Your task to perform on an android device: toggle notification dots Image 0: 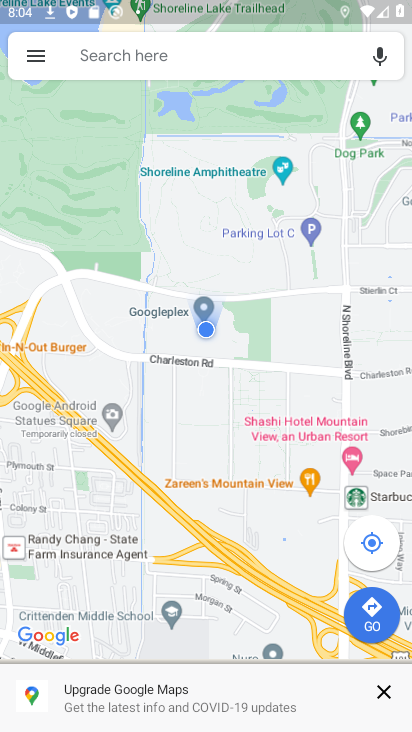
Step 0: press home button
Your task to perform on an android device: toggle notification dots Image 1: 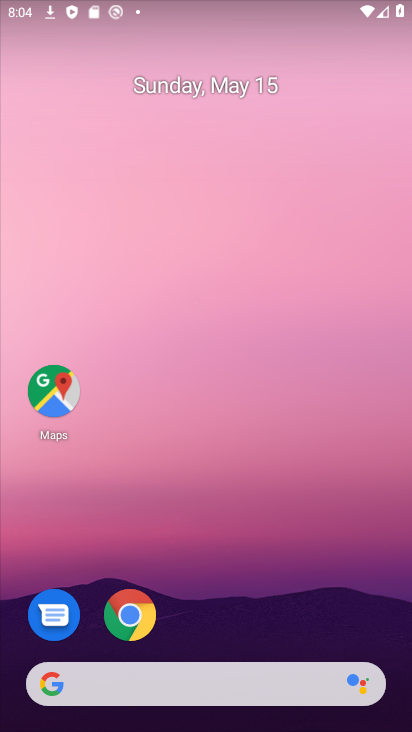
Step 1: drag from (229, 704) to (371, 171)
Your task to perform on an android device: toggle notification dots Image 2: 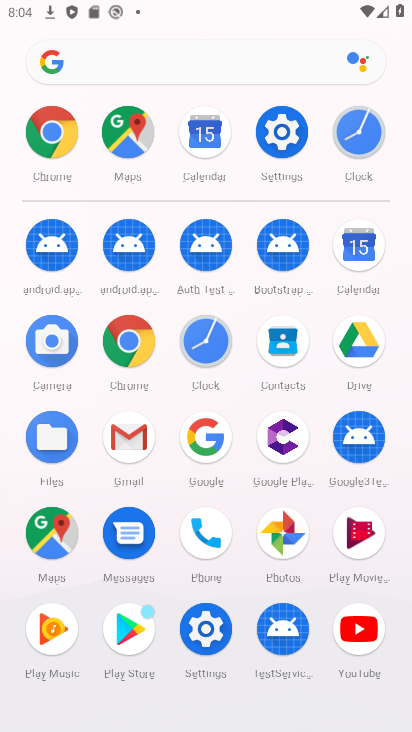
Step 2: click (285, 146)
Your task to perform on an android device: toggle notification dots Image 3: 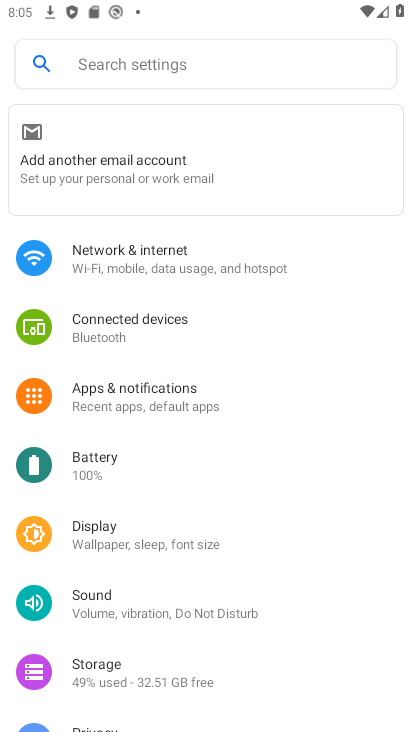
Step 3: click (149, 71)
Your task to perform on an android device: toggle notification dots Image 4: 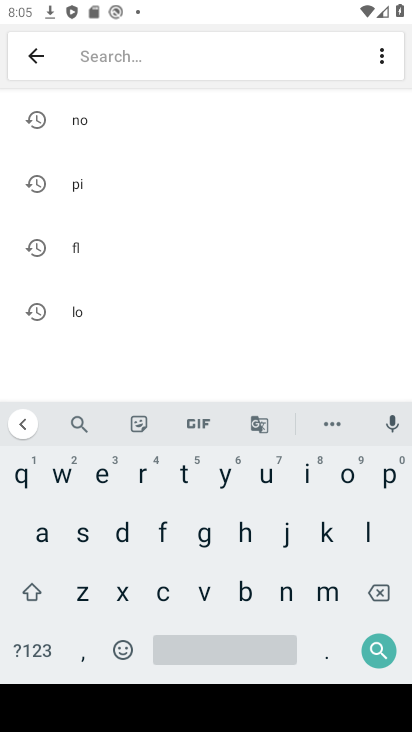
Step 4: click (123, 540)
Your task to perform on an android device: toggle notification dots Image 5: 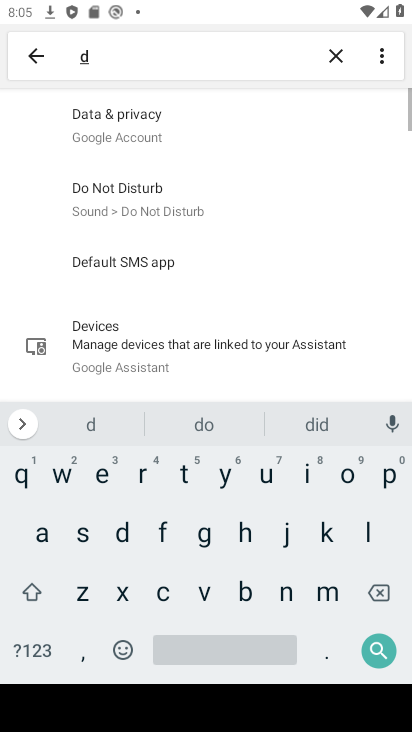
Step 5: click (343, 474)
Your task to perform on an android device: toggle notification dots Image 6: 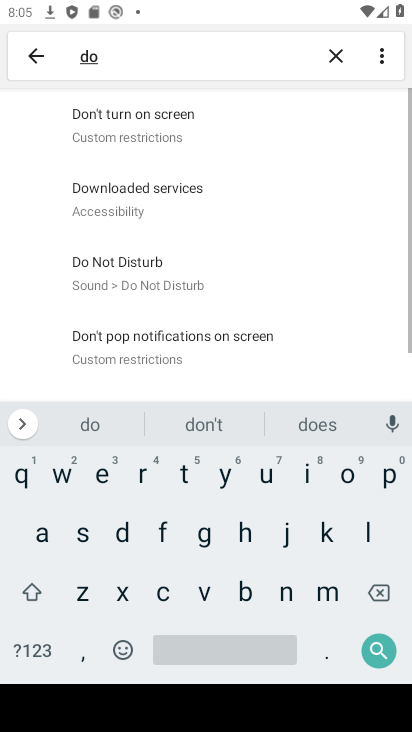
Step 6: click (177, 475)
Your task to perform on an android device: toggle notification dots Image 7: 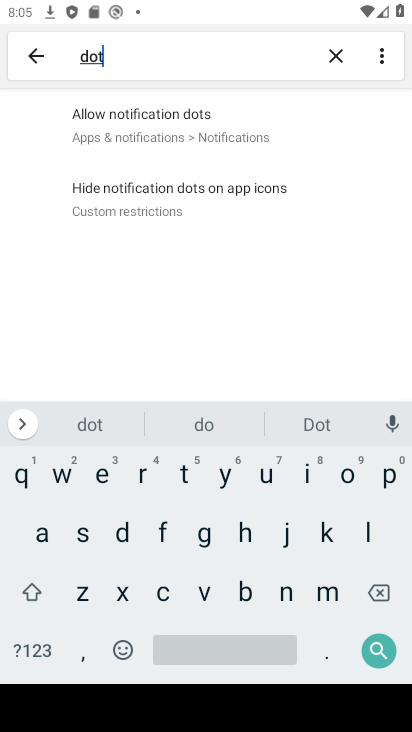
Step 7: click (156, 140)
Your task to perform on an android device: toggle notification dots Image 8: 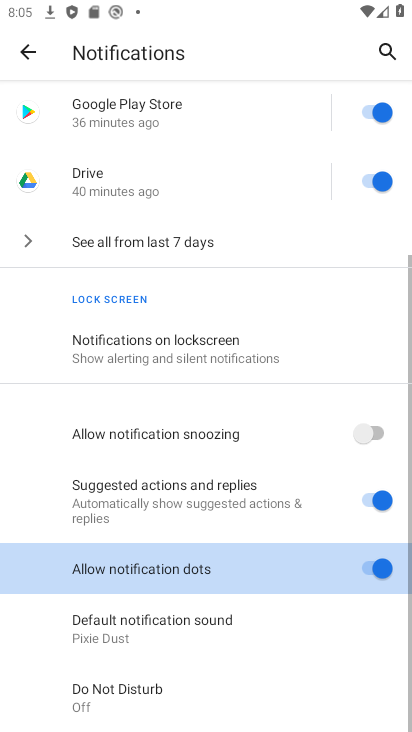
Step 8: task complete